Your task to perform on an android device: Toggle the flashlight Image 0: 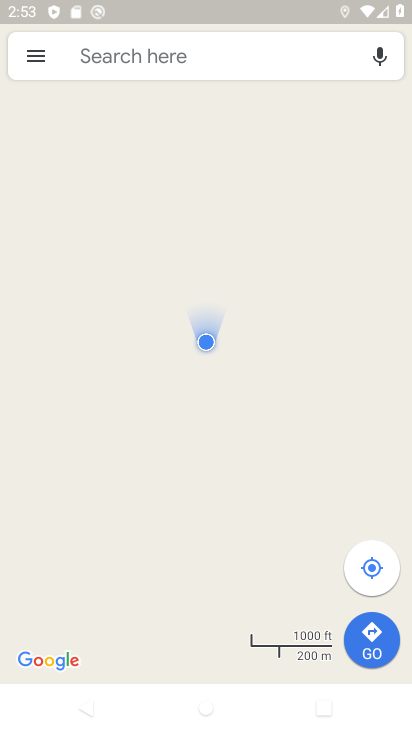
Step 0: click (128, 576)
Your task to perform on an android device: Toggle the flashlight Image 1: 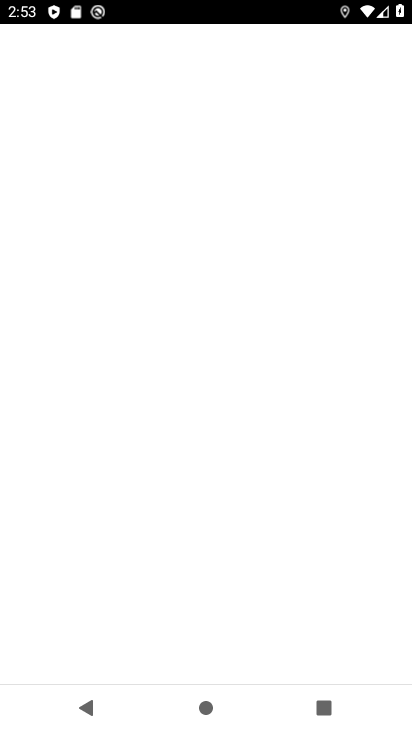
Step 1: press home button
Your task to perform on an android device: Toggle the flashlight Image 2: 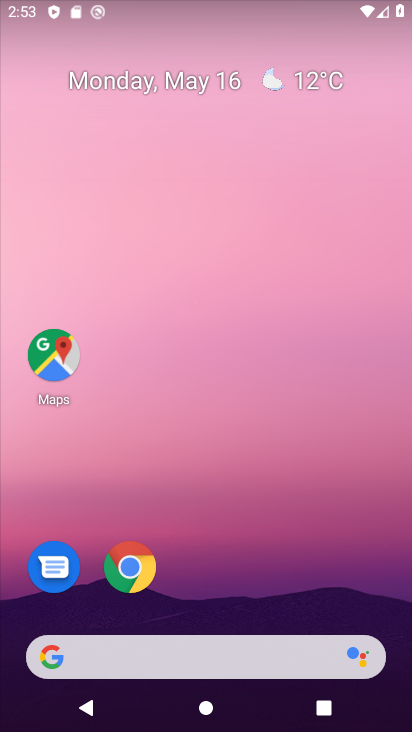
Step 2: click (360, 585)
Your task to perform on an android device: Toggle the flashlight Image 3: 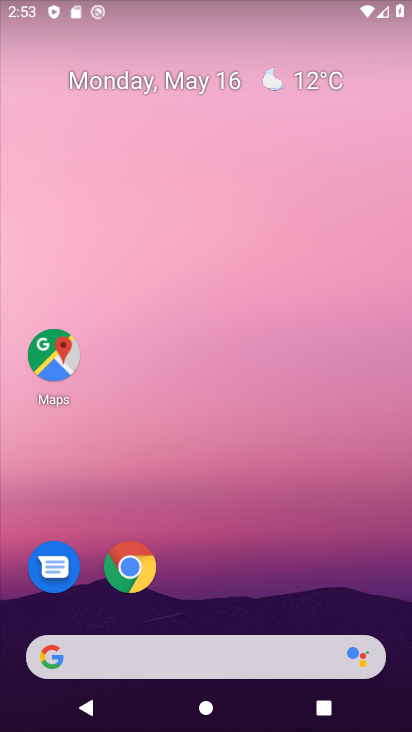
Step 3: task complete